Your task to perform on an android device: open app "Cash App" Image 0: 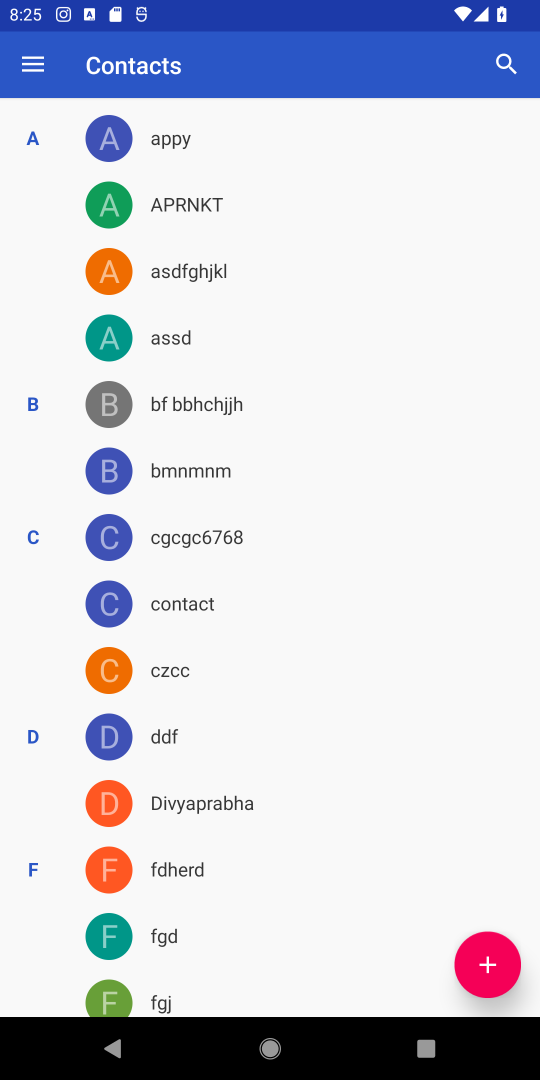
Step 0: press home button
Your task to perform on an android device: open app "Cash App" Image 1: 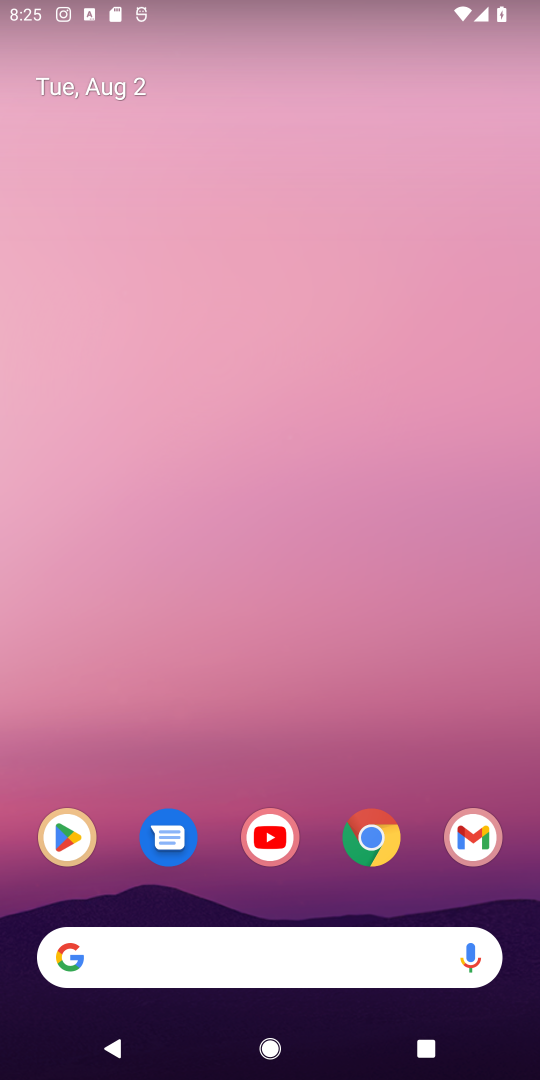
Step 1: click (61, 843)
Your task to perform on an android device: open app "Cash App" Image 2: 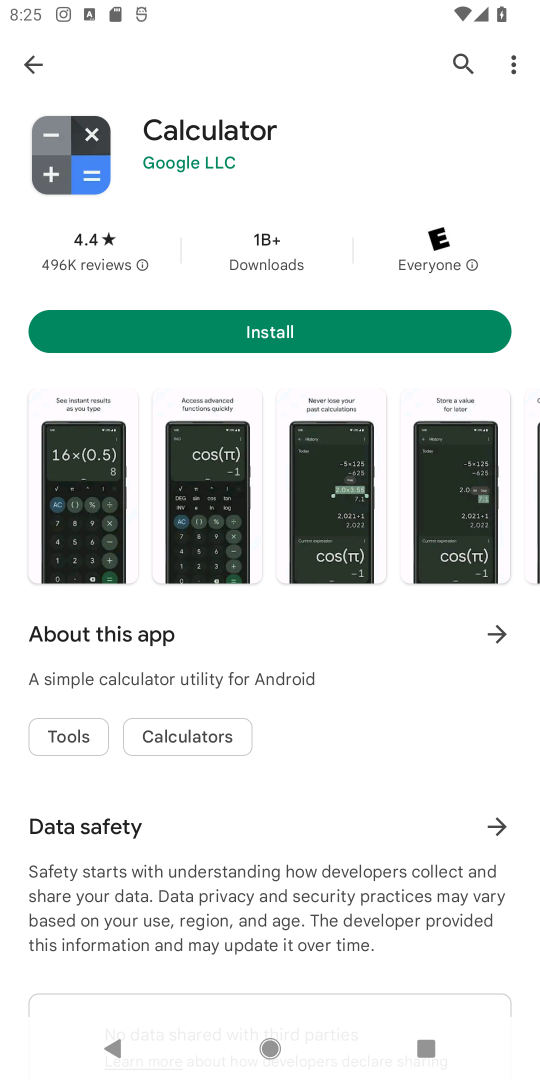
Step 2: click (459, 65)
Your task to perform on an android device: open app "Cash App" Image 3: 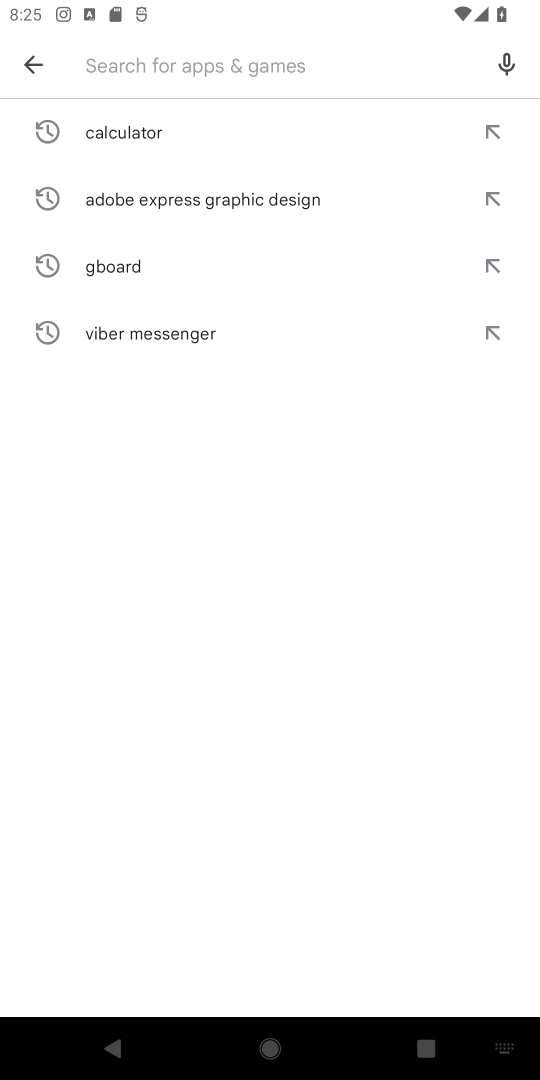
Step 3: type "Cash App"
Your task to perform on an android device: open app "Cash App" Image 4: 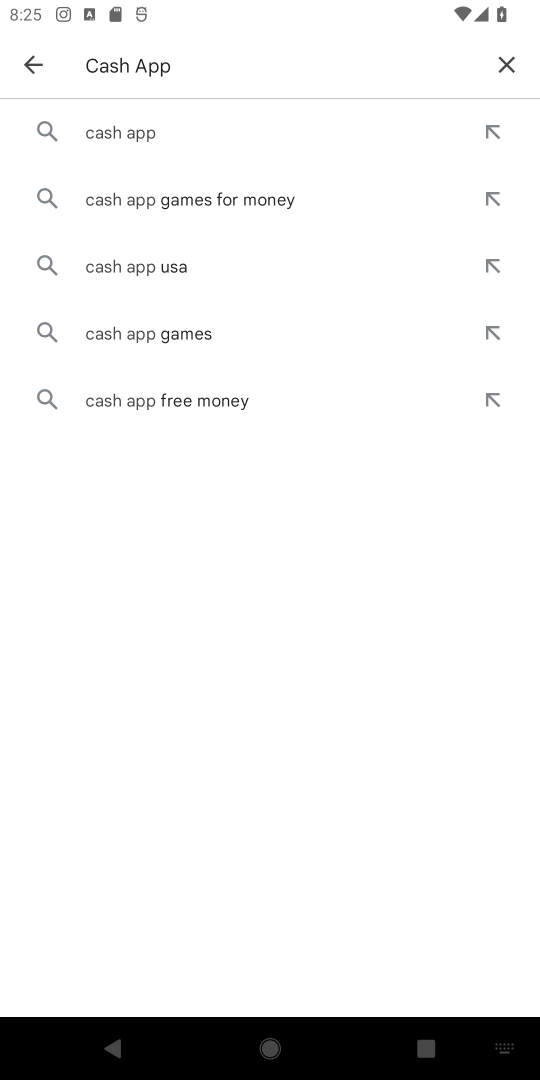
Step 4: click (105, 138)
Your task to perform on an android device: open app "Cash App" Image 5: 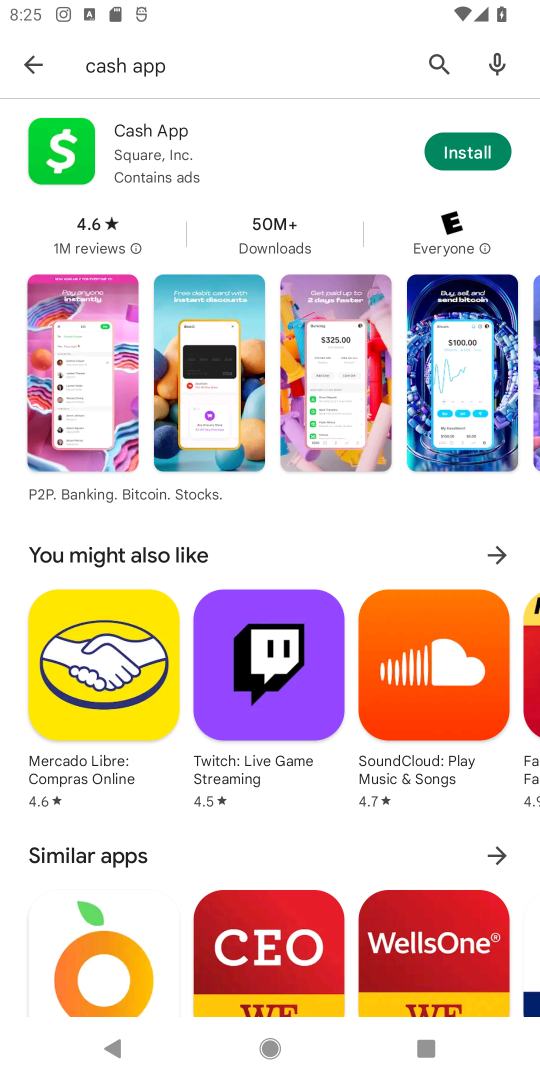
Step 5: task complete